Your task to perform on an android device: change your default location settings in chrome Image 0: 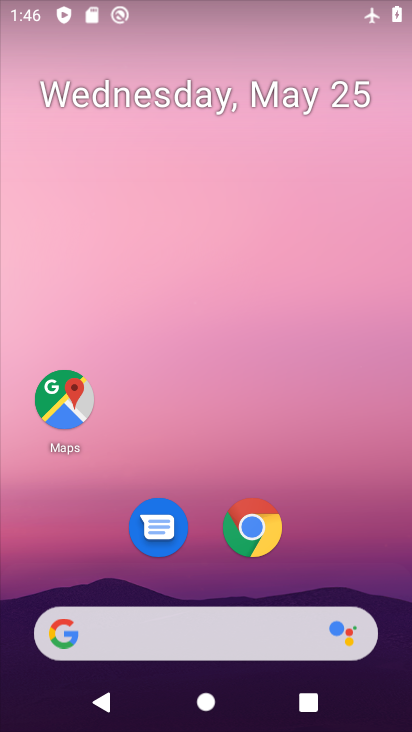
Step 0: click (240, 519)
Your task to perform on an android device: change your default location settings in chrome Image 1: 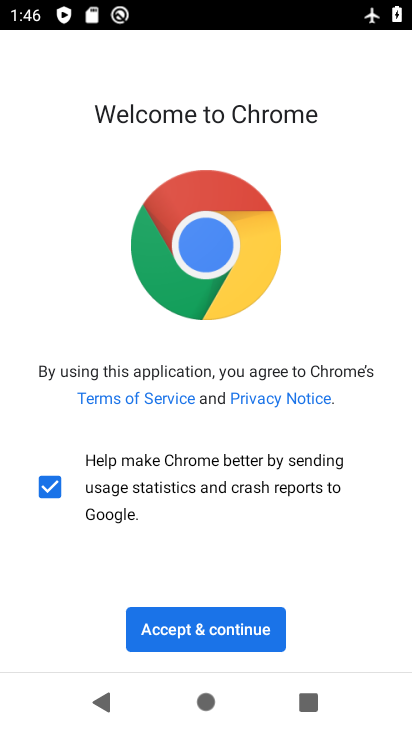
Step 1: click (197, 619)
Your task to perform on an android device: change your default location settings in chrome Image 2: 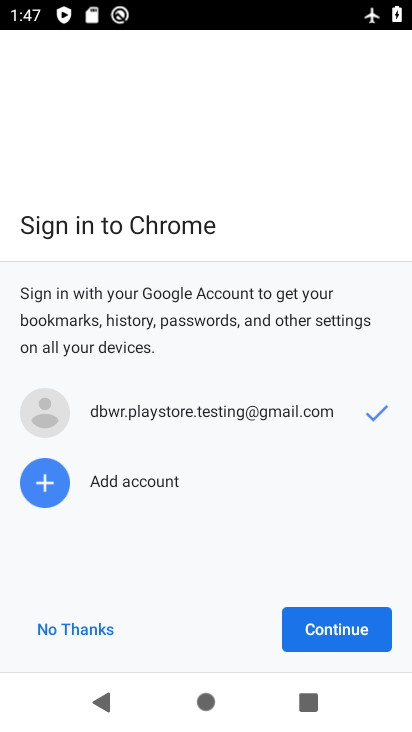
Step 2: click (326, 628)
Your task to perform on an android device: change your default location settings in chrome Image 3: 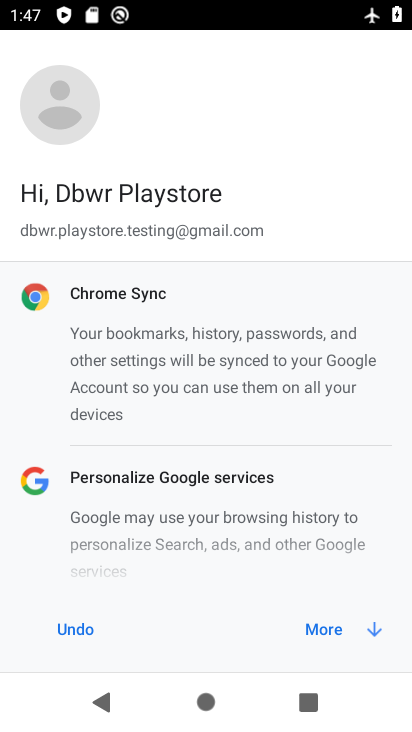
Step 3: click (326, 628)
Your task to perform on an android device: change your default location settings in chrome Image 4: 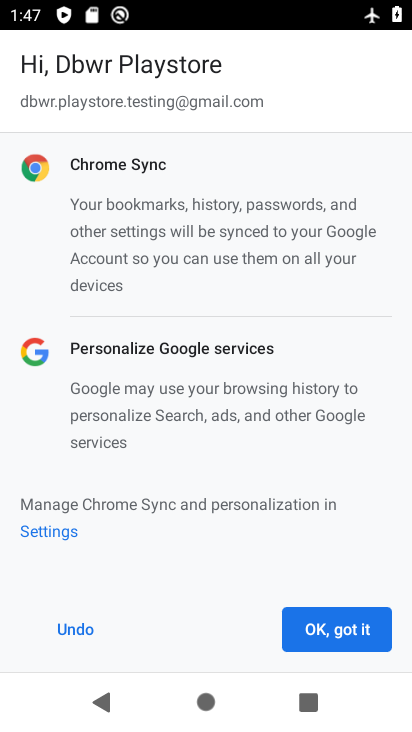
Step 4: click (327, 629)
Your task to perform on an android device: change your default location settings in chrome Image 5: 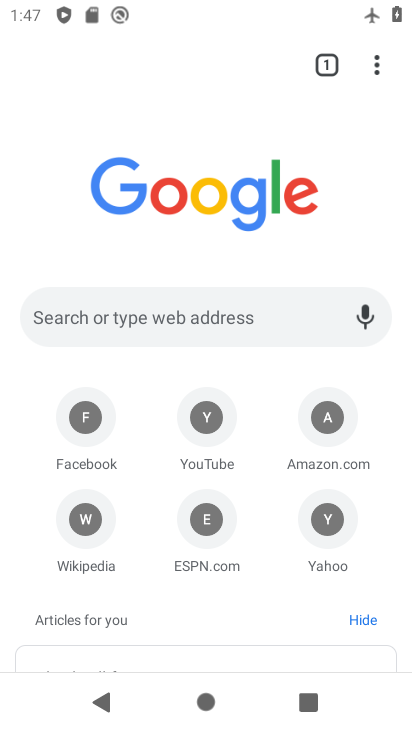
Step 5: drag from (377, 62) to (166, 534)
Your task to perform on an android device: change your default location settings in chrome Image 6: 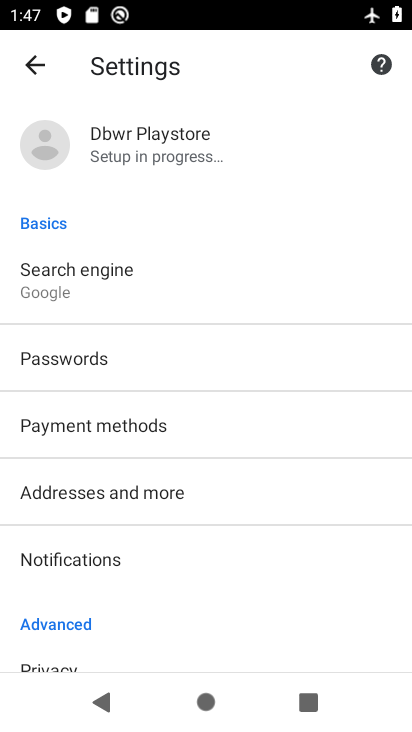
Step 6: drag from (104, 643) to (190, 161)
Your task to perform on an android device: change your default location settings in chrome Image 7: 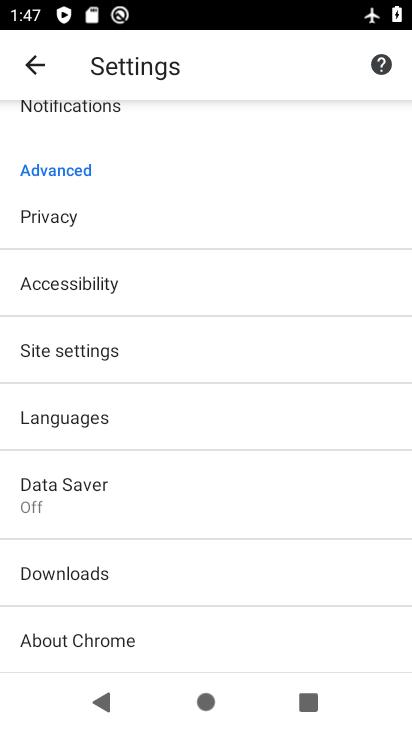
Step 7: click (71, 351)
Your task to perform on an android device: change your default location settings in chrome Image 8: 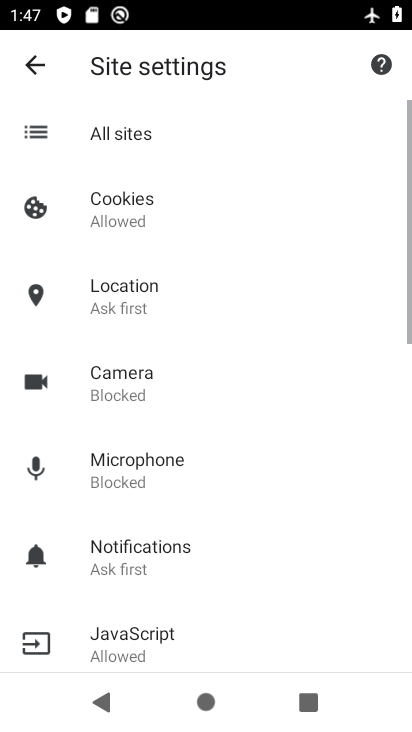
Step 8: click (124, 300)
Your task to perform on an android device: change your default location settings in chrome Image 9: 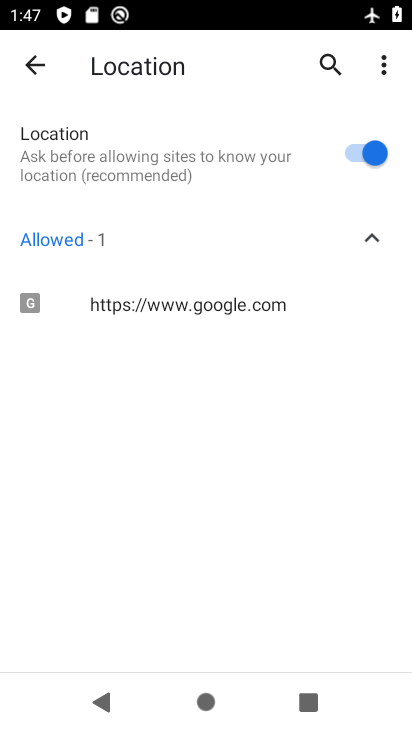
Step 9: click (362, 160)
Your task to perform on an android device: change your default location settings in chrome Image 10: 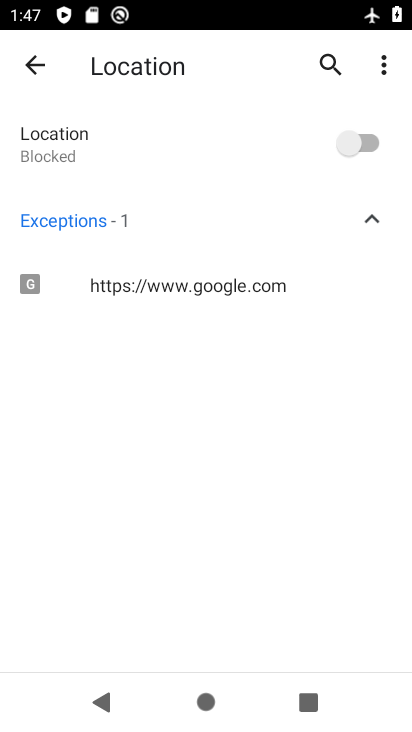
Step 10: task complete